Your task to perform on an android device: Show me the alarms in the clock app Image 0: 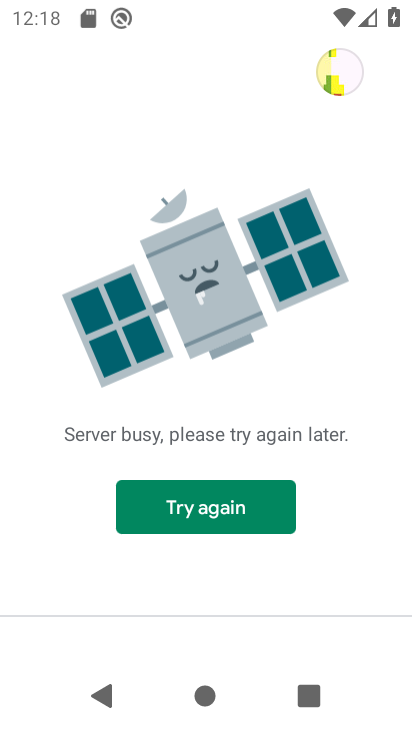
Step 0: press home button
Your task to perform on an android device: Show me the alarms in the clock app Image 1: 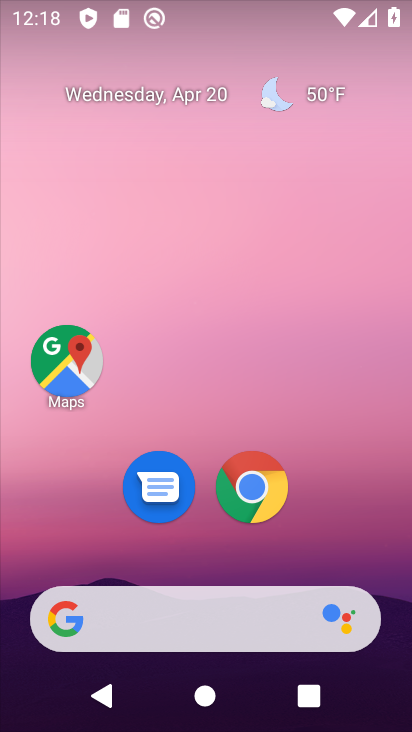
Step 1: drag from (378, 490) to (368, 96)
Your task to perform on an android device: Show me the alarms in the clock app Image 2: 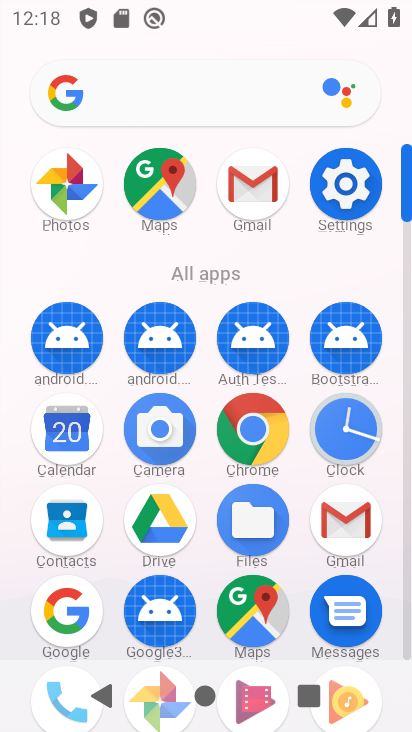
Step 2: click (348, 422)
Your task to perform on an android device: Show me the alarms in the clock app Image 3: 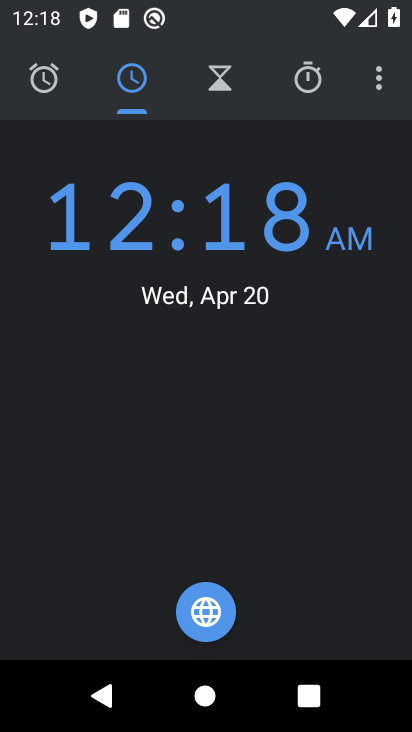
Step 3: click (380, 77)
Your task to perform on an android device: Show me the alarms in the clock app Image 4: 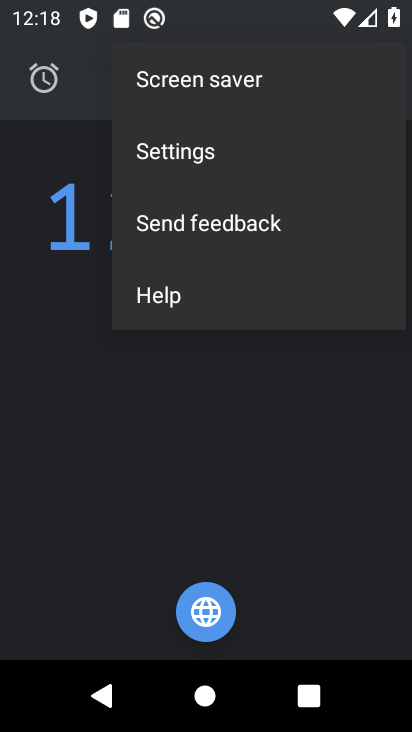
Step 4: click (63, 88)
Your task to perform on an android device: Show me the alarms in the clock app Image 5: 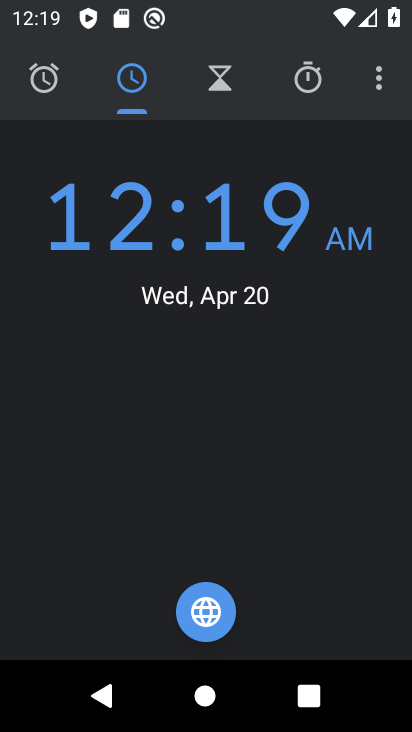
Step 5: click (57, 88)
Your task to perform on an android device: Show me the alarms in the clock app Image 6: 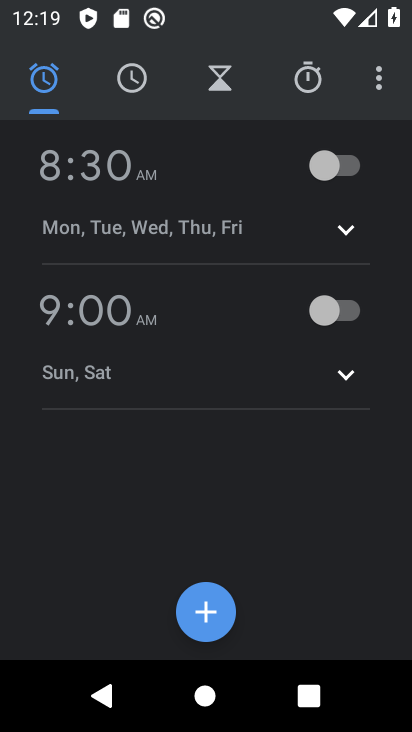
Step 6: task complete